Your task to perform on an android device: Go to Yahoo.com Image 0: 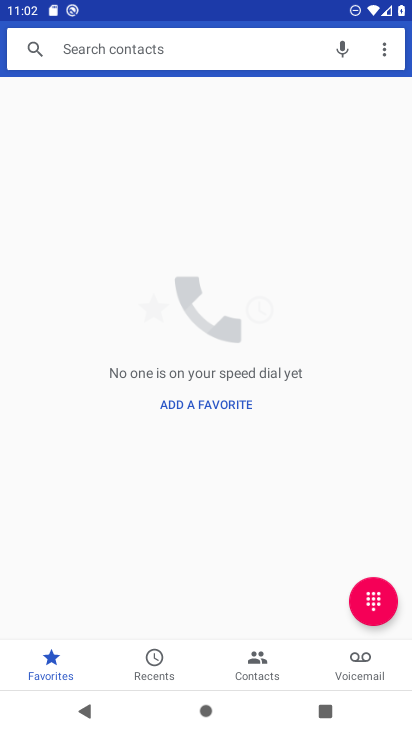
Step 0: press home button
Your task to perform on an android device: Go to Yahoo.com Image 1: 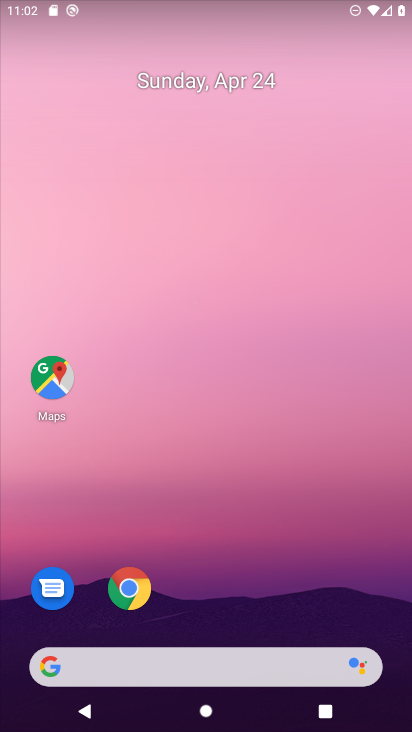
Step 1: click (119, 576)
Your task to perform on an android device: Go to Yahoo.com Image 2: 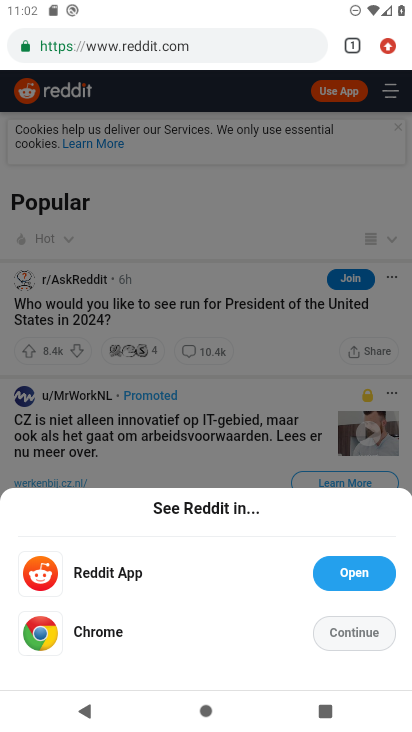
Step 2: click (143, 56)
Your task to perform on an android device: Go to Yahoo.com Image 3: 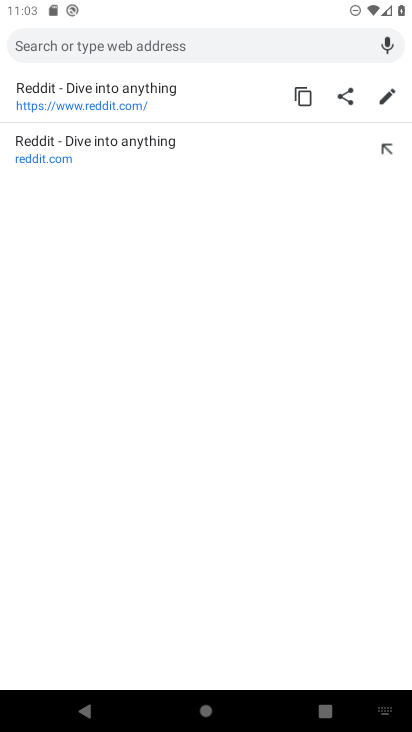
Step 3: type "yahoo.com"
Your task to perform on an android device: Go to Yahoo.com Image 4: 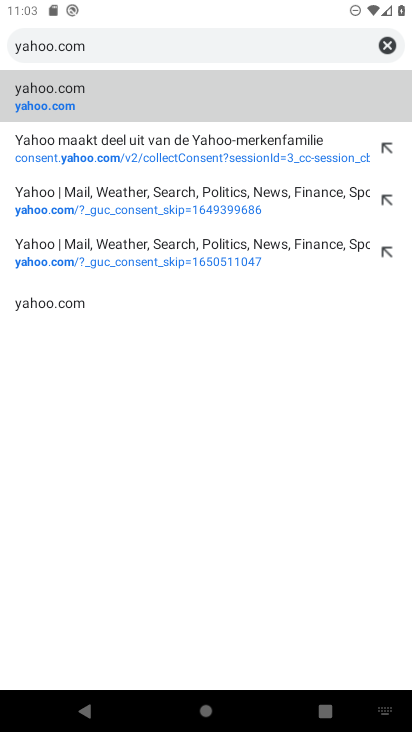
Step 4: click (119, 86)
Your task to perform on an android device: Go to Yahoo.com Image 5: 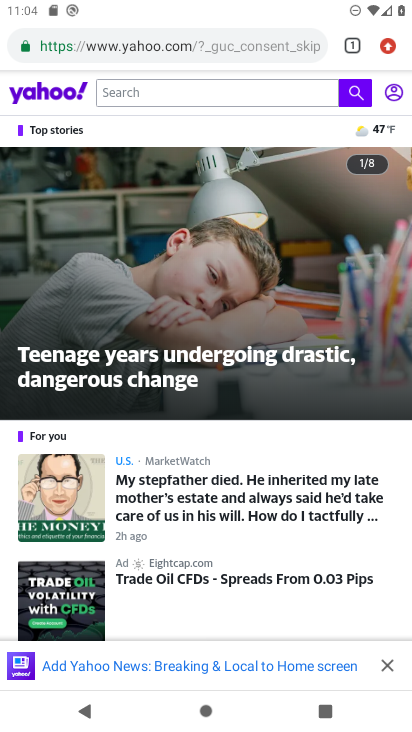
Step 5: task complete